Your task to perform on an android device: check storage Image 0: 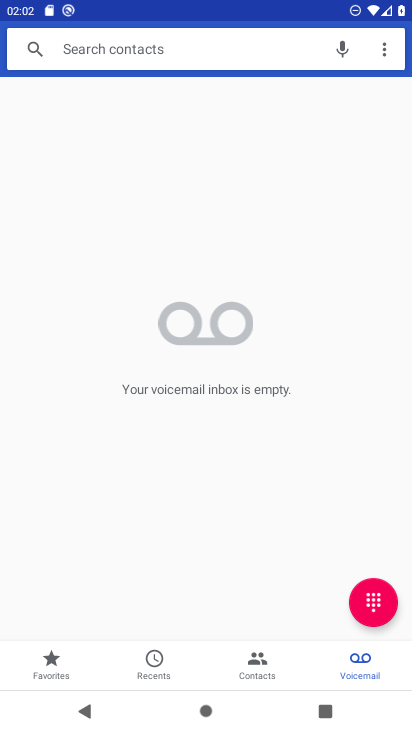
Step 0: press home button
Your task to perform on an android device: check storage Image 1: 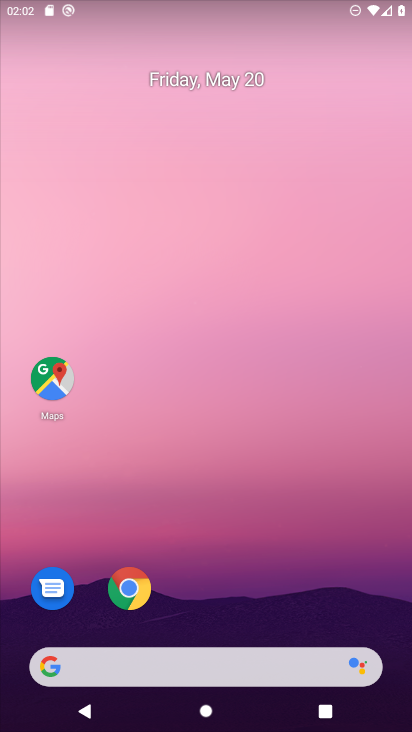
Step 1: drag from (390, 621) to (325, 71)
Your task to perform on an android device: check storage Image 2: 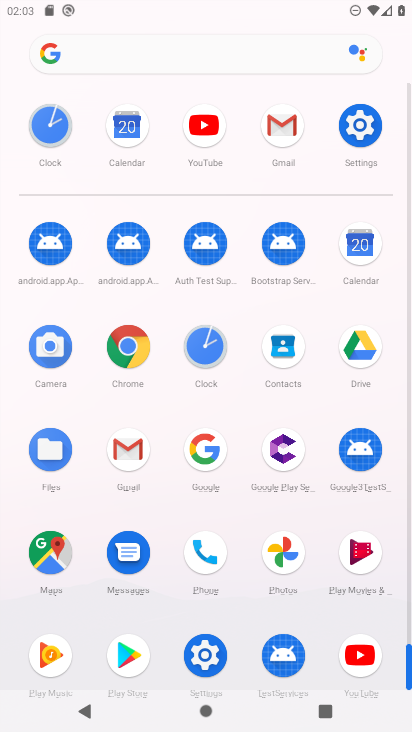
Step 2: click (205, 653)
Your task to perform on an android device: check storage Image 3: 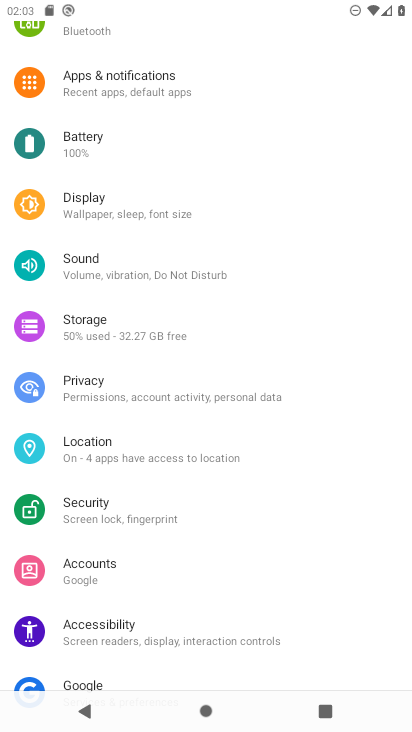
Step 3: click (86, 325)
Your task to perform on an android device: check storage Image 4: 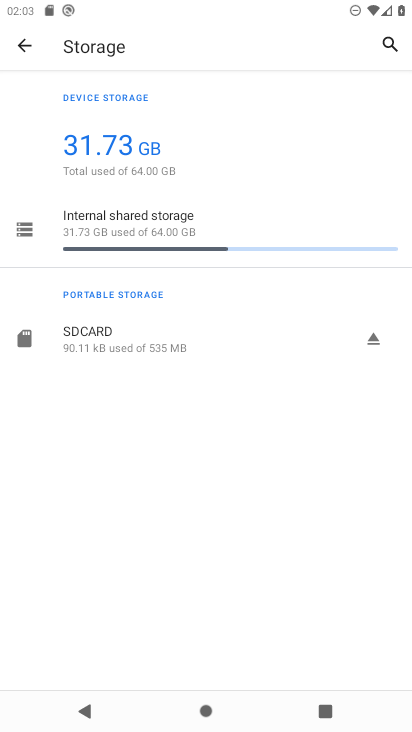
Step 4: task complete